Your task to perform on an android device: Add "razer blade" to the cart on costco.com, then select checkout. Image 0: 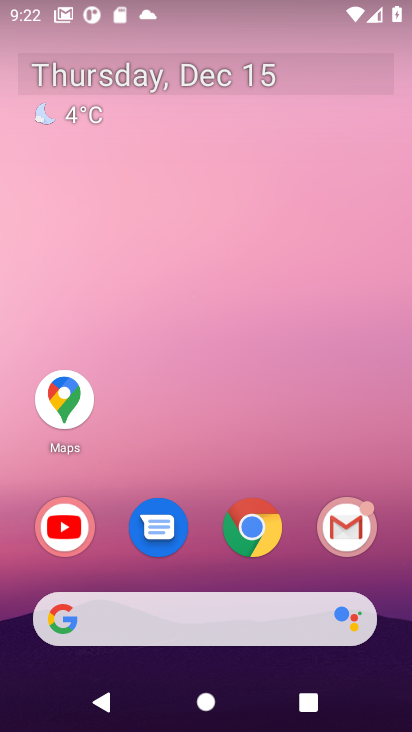
Step 0: click (257, 532)
Your task to perform on an android device: Add "razer blade" to the cart on costco.com, then select checkout. Image 1: 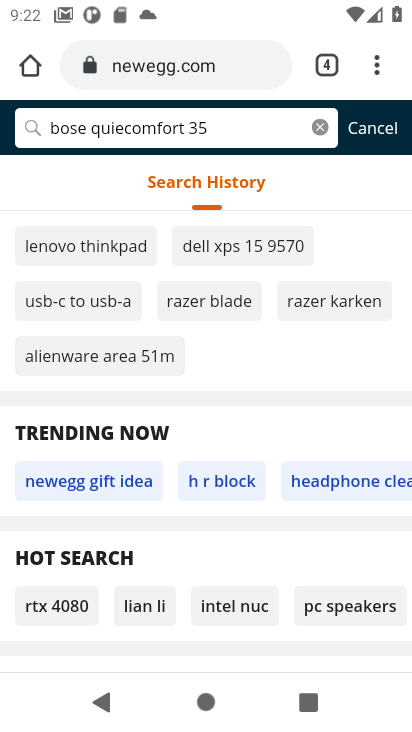
Step 1: click (176, 67)
Your task to perform on an android device: Add "razer blade" to the cart on costco.com, then select checkout. Image 2: 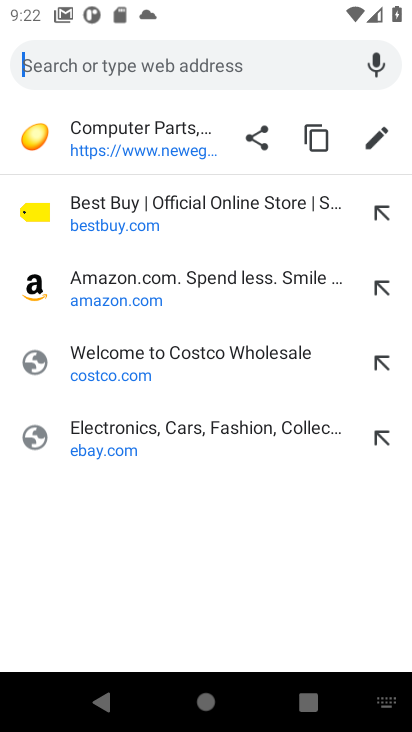
Step 2: click (203, 380)
Your task to perform on an android device: Add "razer blade" to the cart on costco.com, then select checkout. Image 3: 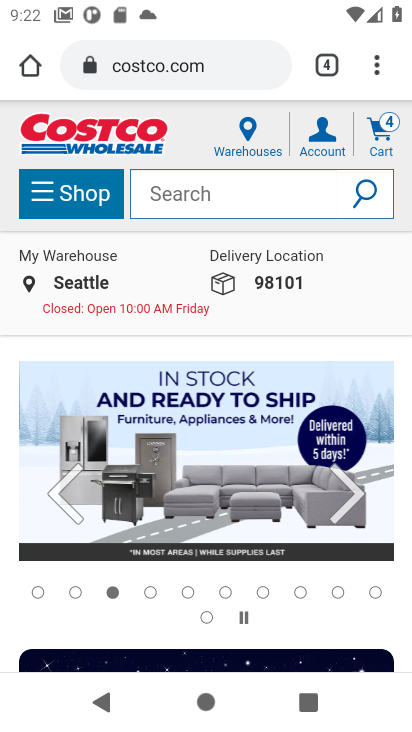
Step 3: click (198, 186)
Your task to perform on an android device: Add "razer blade" to the cart on costco.com, then select checkout. Image 4: 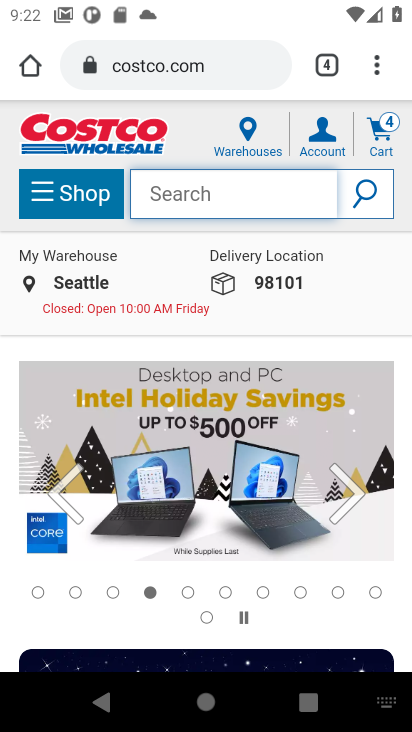
Step 4: type "razer blade"
Your task to perform on an android device: Add "razer blade" to the cart on costco.com, then select checkout. Image 5: 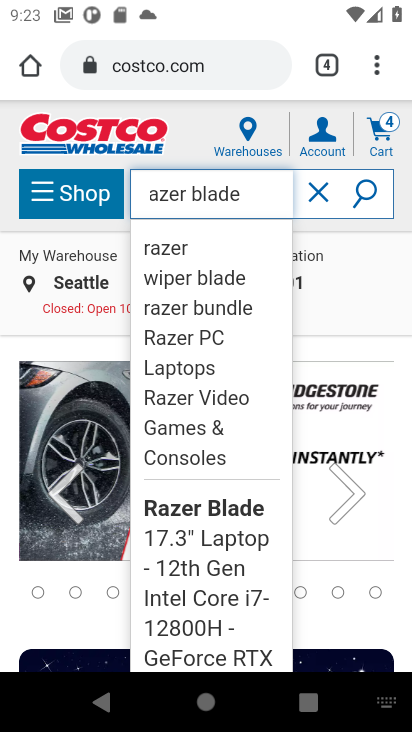
Step 5: click (341, 206)
Your task to perform on an android device: Add "razer blade" to the cart on costco.com, then select checkout. Image 6: 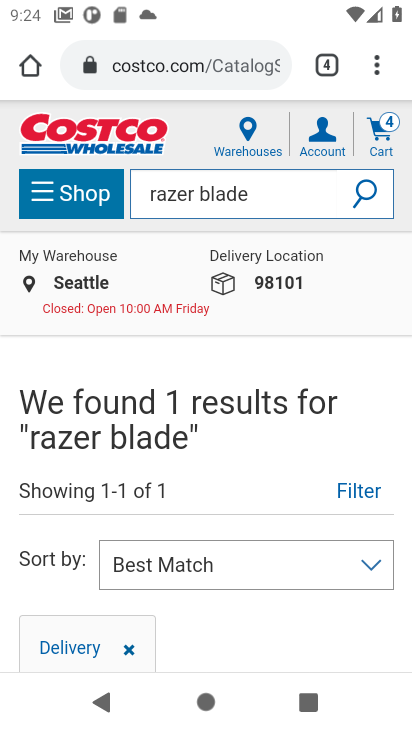
Step 6: task complete